Your task to perform on an android device: stop showing notifications on the lock screen Image 0: 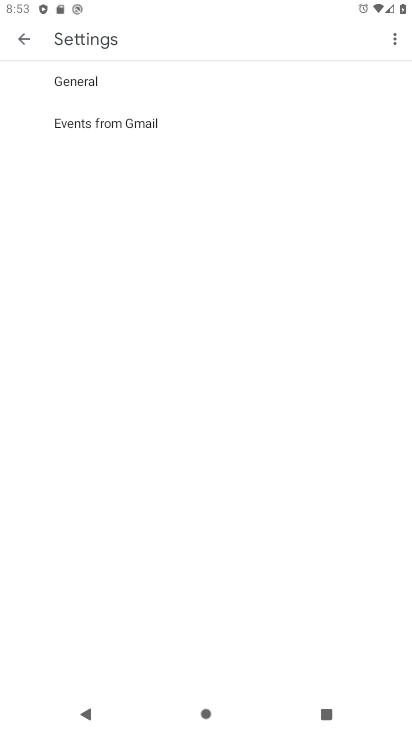
Step 0: drag from (314, 491) to (333, 273)
Your task to perform on an android device: stop showing notifications on the lock screen Image 1: 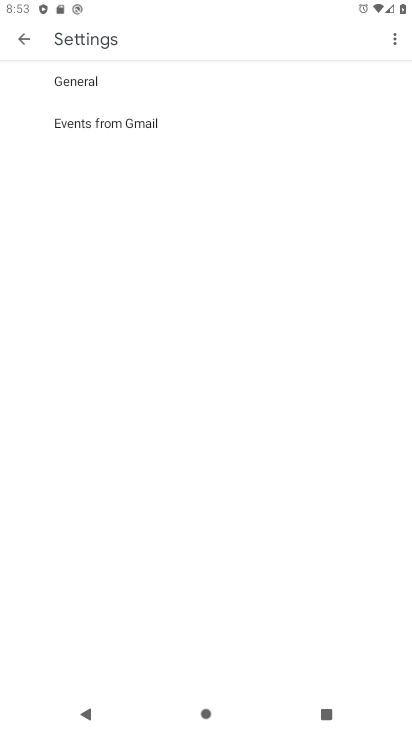
Step 1: press home button
Your task to perform on an android device: stop showing notifications on the lock screen Image 2: 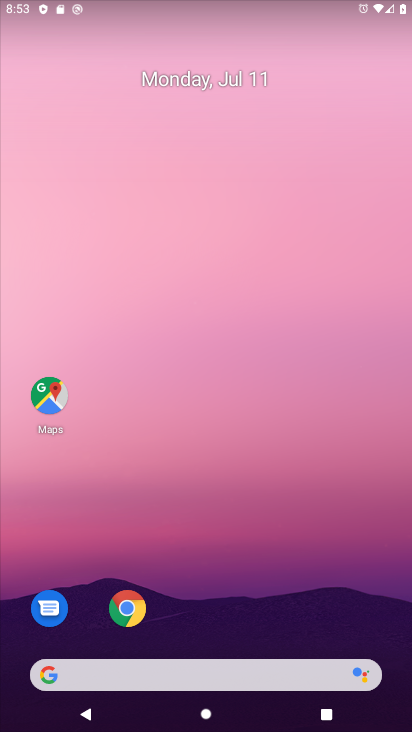
Step 2: drag from (215, 582) to (348, 10)
Your task to perform on an android device: stop showing notifications on the lock screen Image 3: 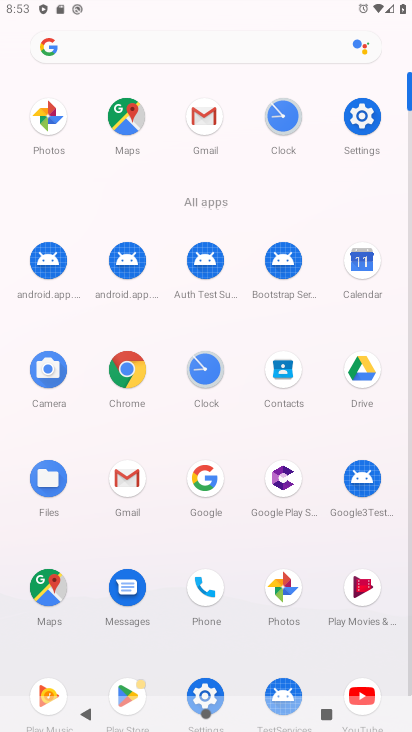
Step 3: click (352, 109)
Your task to perform on an android device: stop showing notifications on the lock screen Image 4: 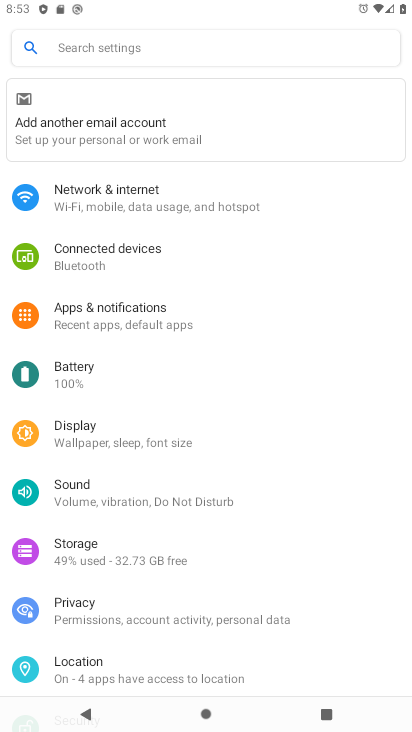
Step 4: click (126, 299)
Your task to perform on an android device: stop showing notifications on the lock screen Image 5: 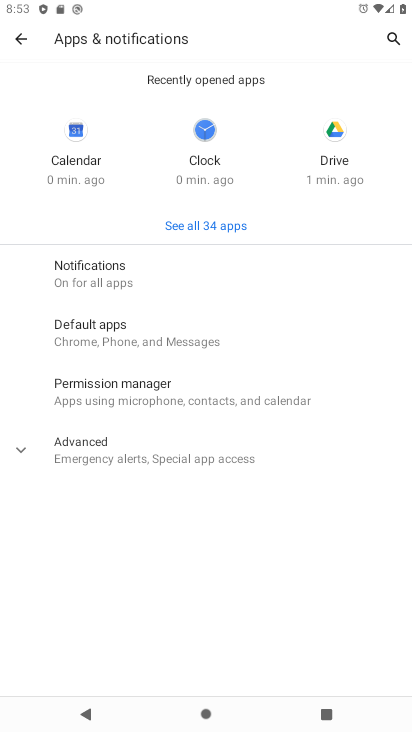
Step 5: click (72, 267)
Your task to perform on an android device: stop showing notifications on the lock screen Image 6: 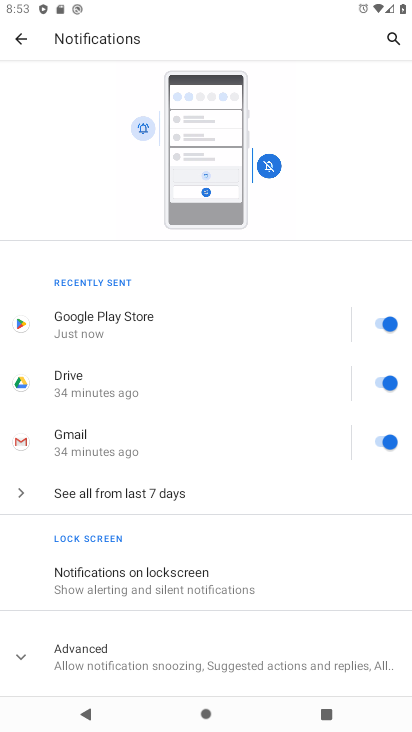
Step 6: click (122, 577)
Your task to perform on an android device: stop showing notifications on the lock screen Image 7: 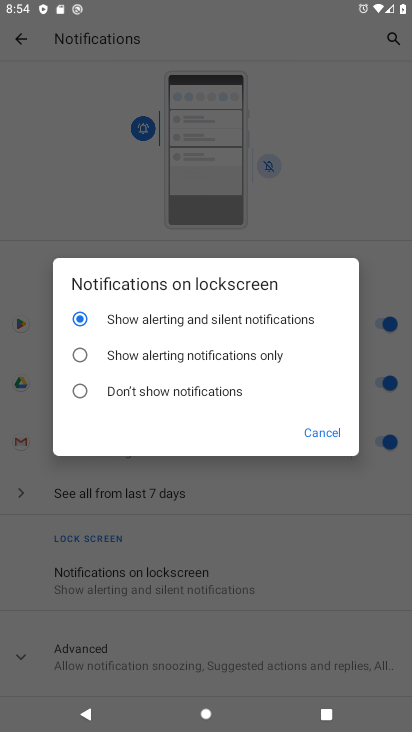
Step 7: click (122, 391)
Your task to perform on an android device: stop showing notifications on the lock screen Image 8: 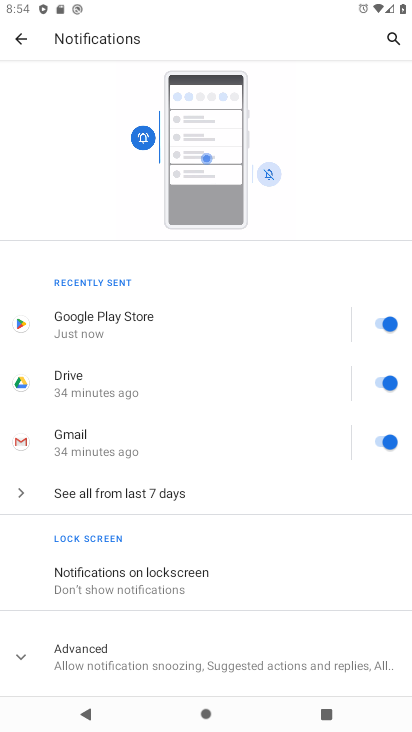
Step 8: task complete